Your task to perform on an android device: open app "Airtel Thanks" Image 0: 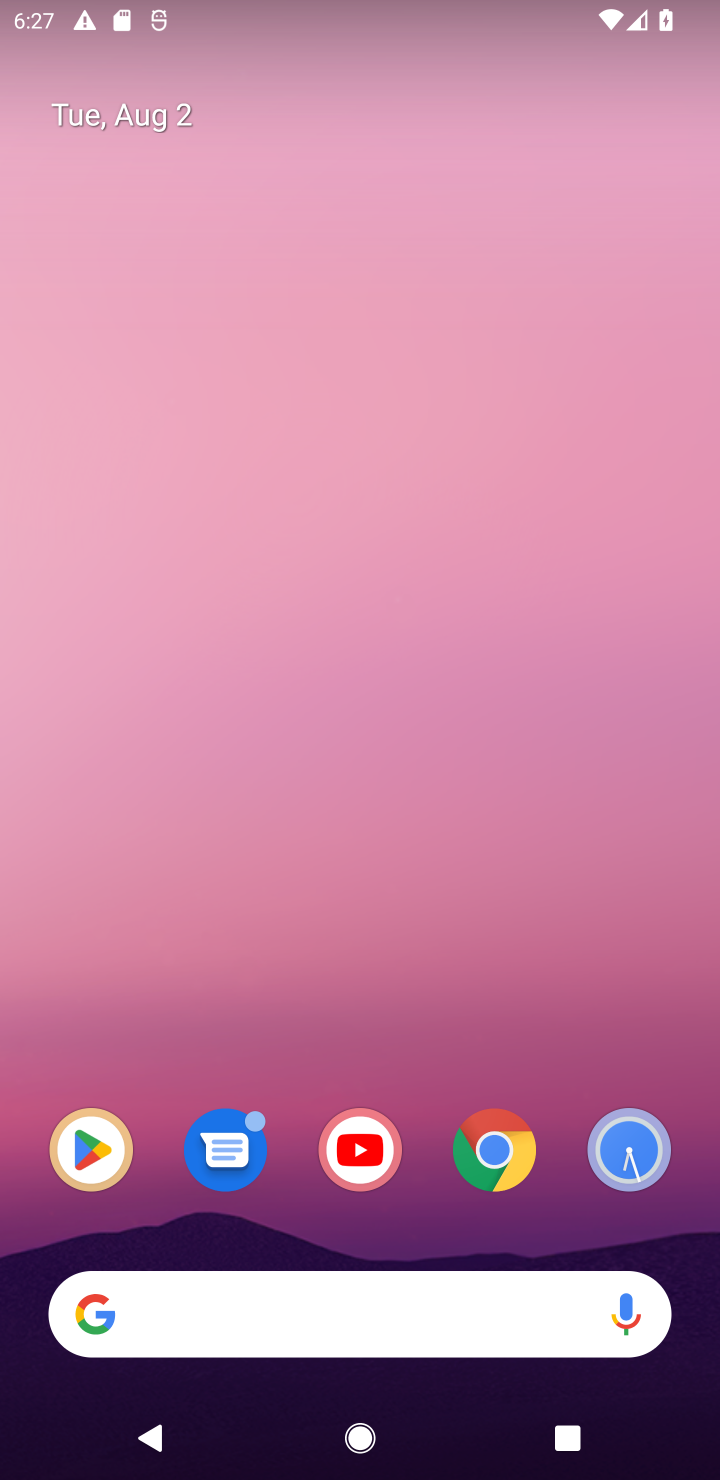
Step 0: drag from (392, 1243) to (349, 6)
Your task to perform on an android device: open app "Airtel Thanks" Image 1: 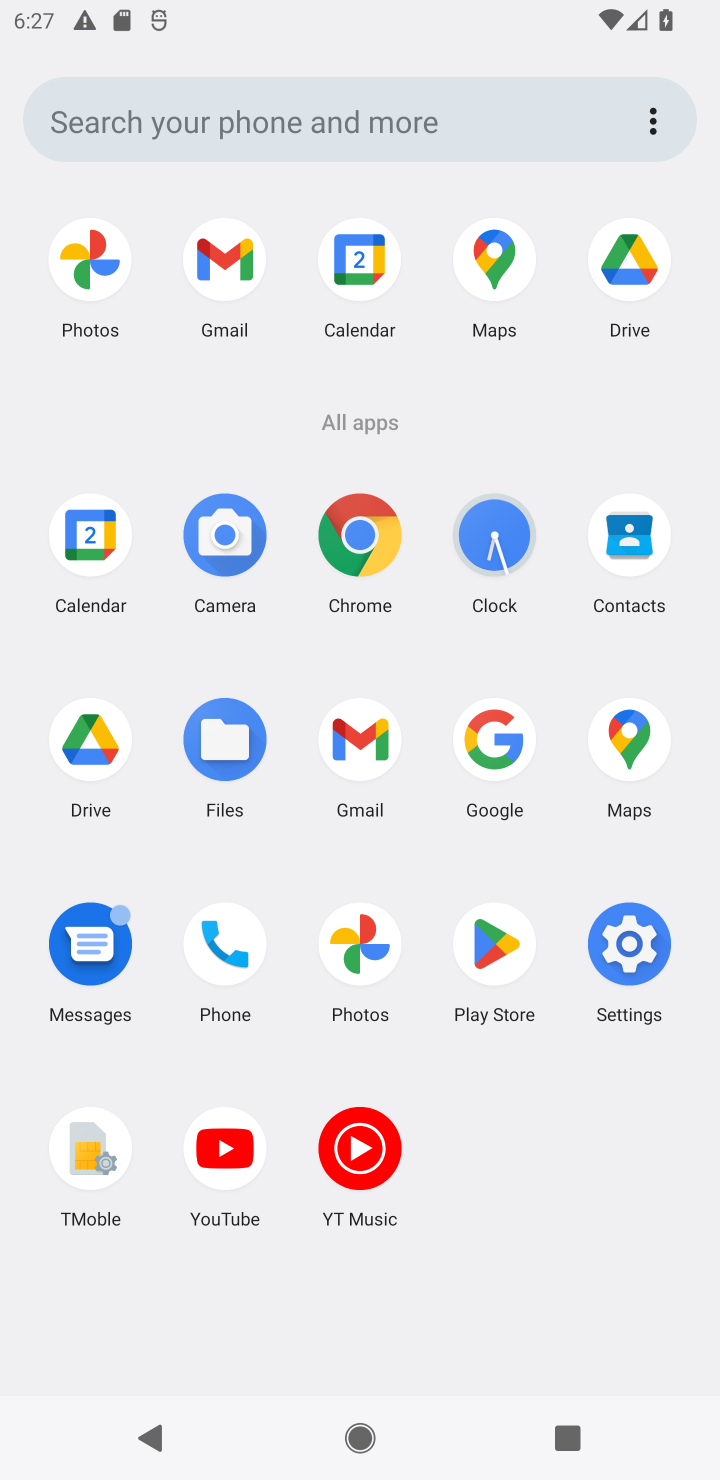
Step 1: click (467, 933)
Your task to perform on an android device: open app "Airtel Thanks" Image 2: 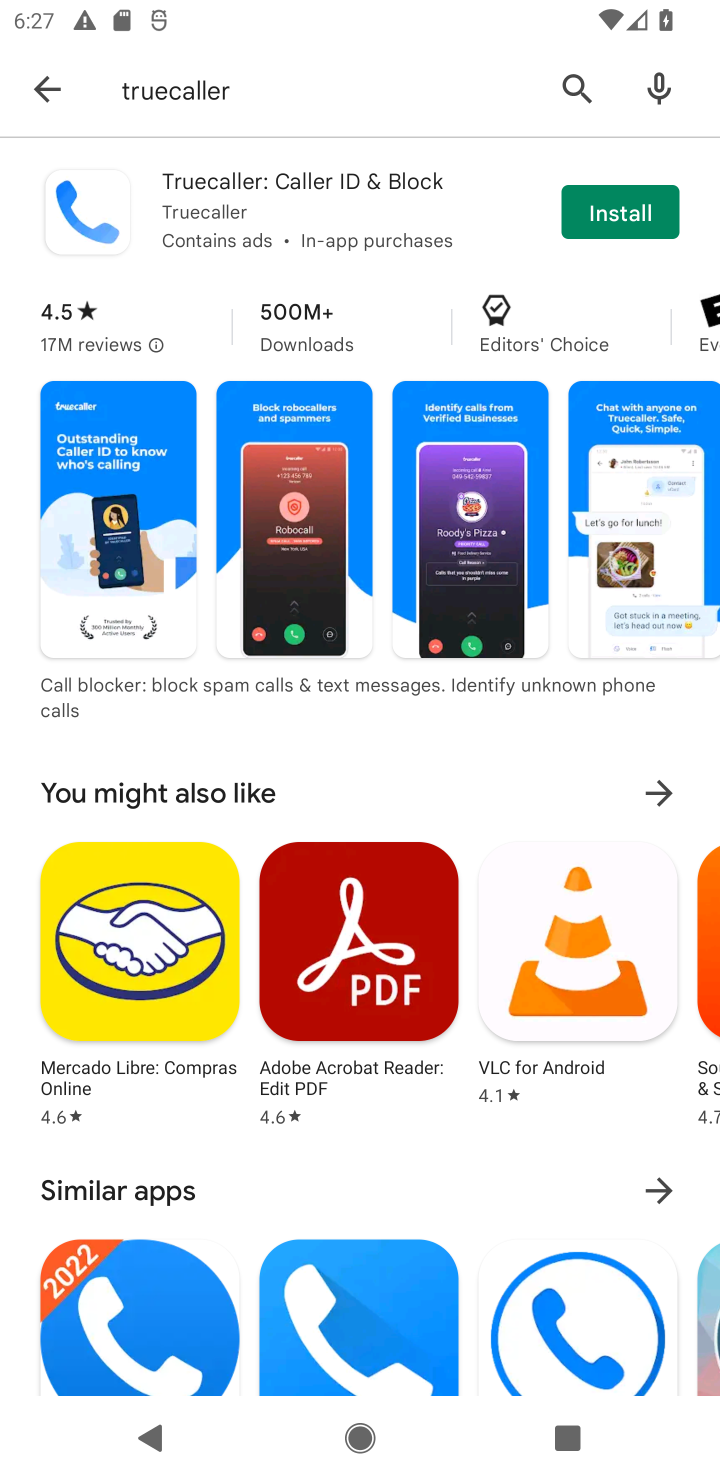
Step 2: click (55, 83)
Your task to perform on an android device: open app "Airtel Thanks" Image 3: 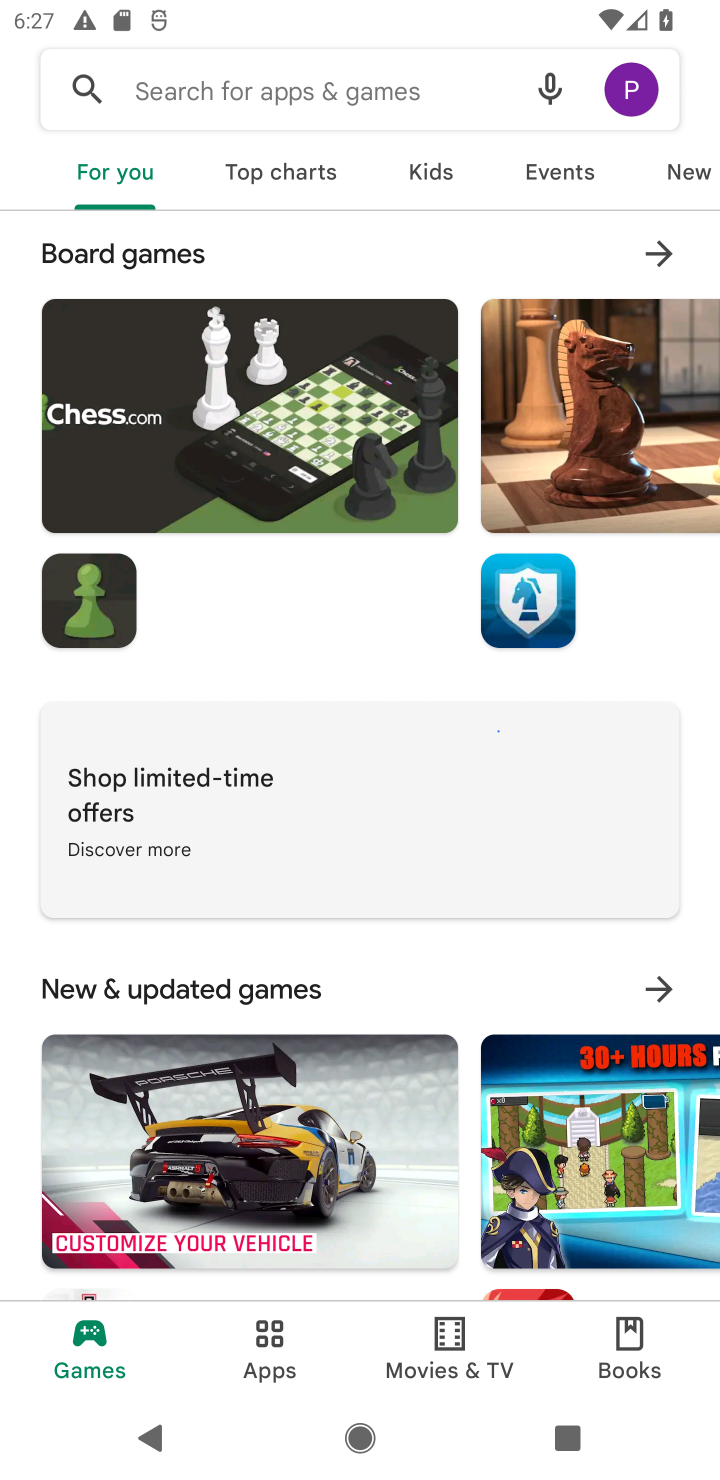
Step 3: click (222, 92)
Your task to perform on an android device: open app "Airtel Thanks" Image 4: 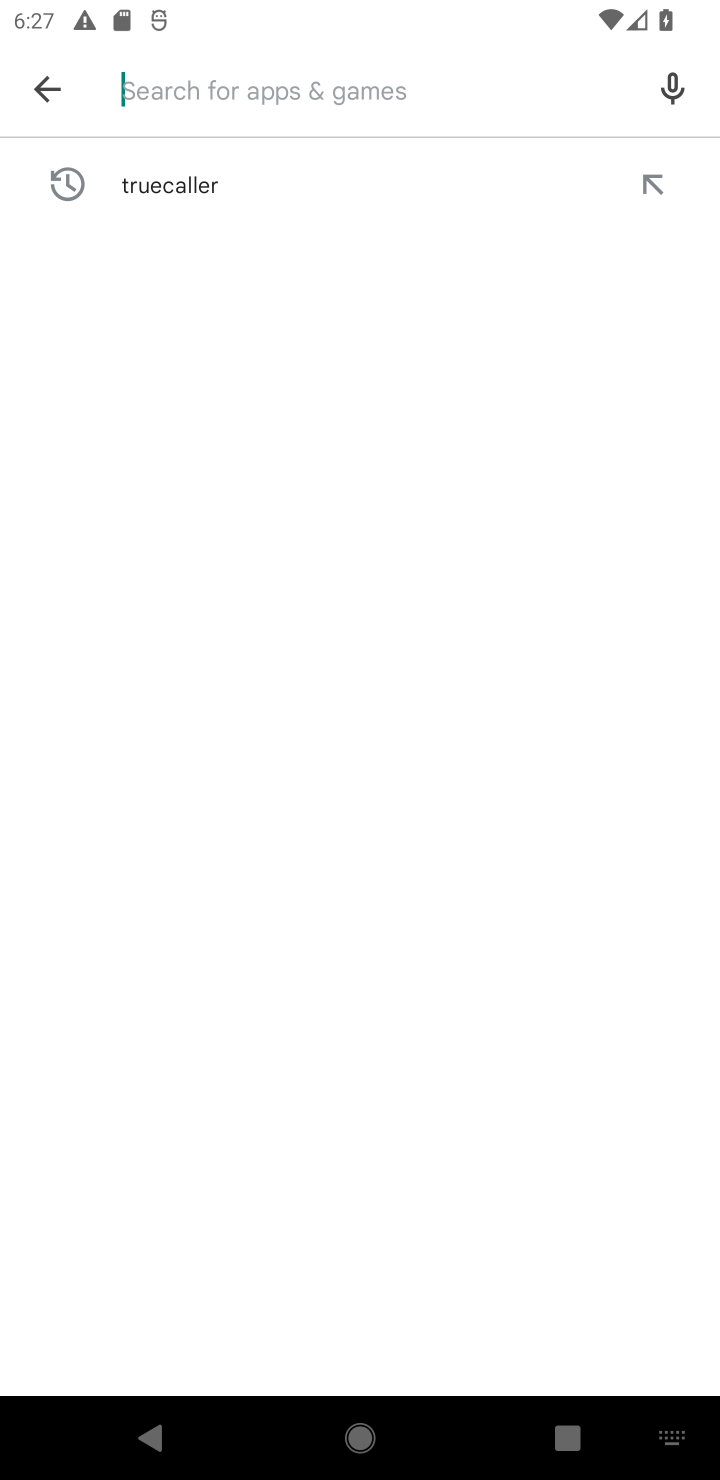
Step 4: type "Airtel Thanks"
Your task to perform on an android device: open app "Airtel Thanks" Image 5: 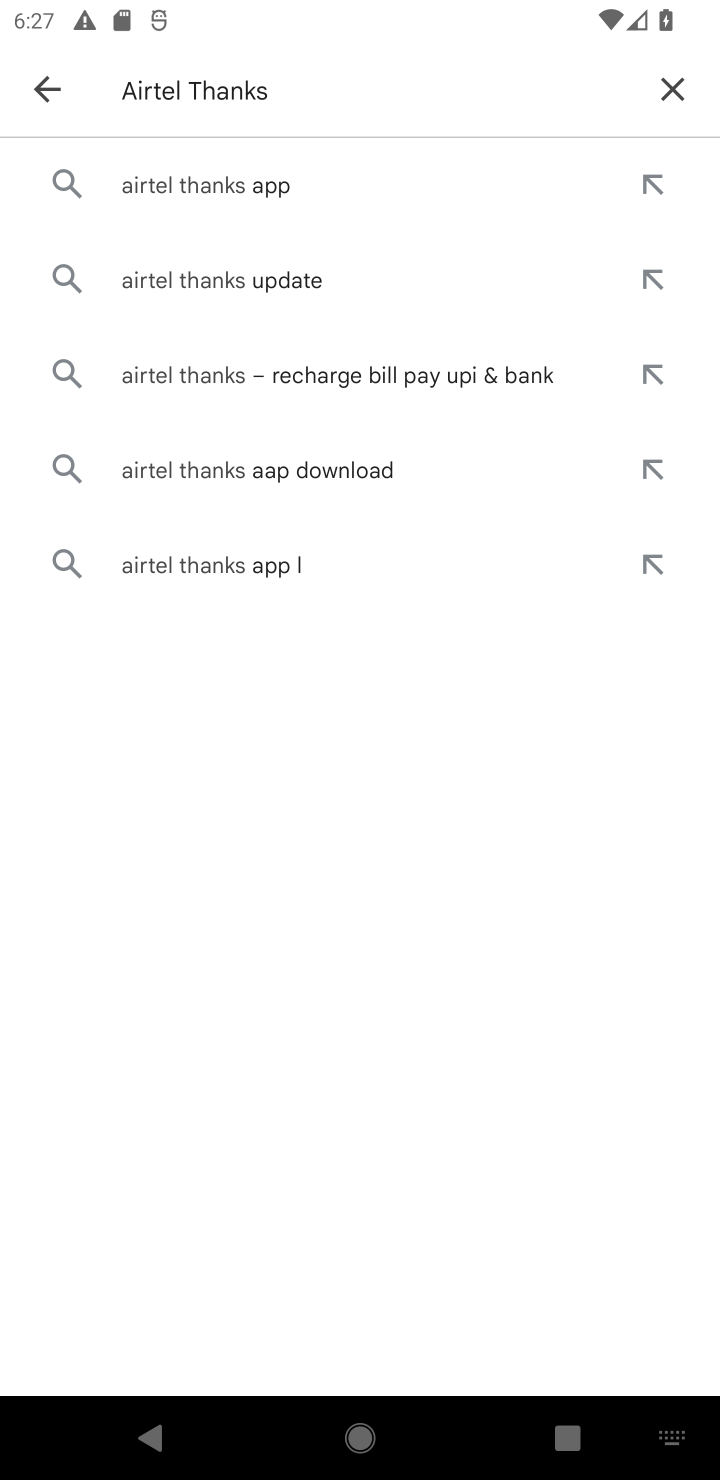
Step 5: click (271, 186)
Your task to perform on an android device: open app "Airtel Thanks" Image 6: 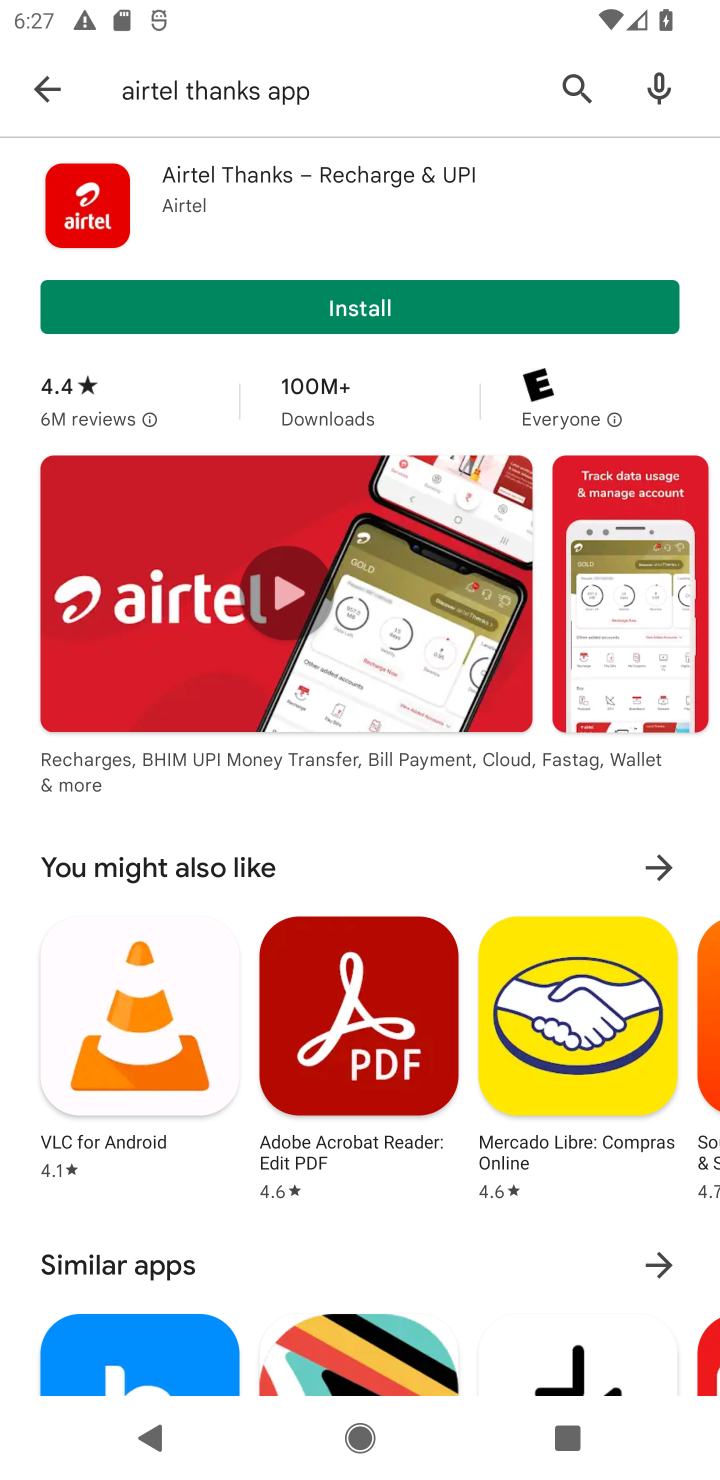
Step 6: task complete